Your task to perform on an android device: delete browsing data in the chrome app Image 0: 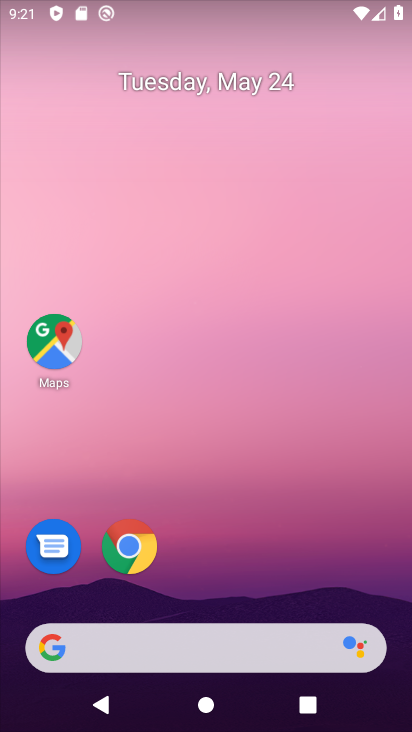
Step 0: click (128, 546)
Your task to perform on an android device: delete browsing data in the chrome app Image 1: 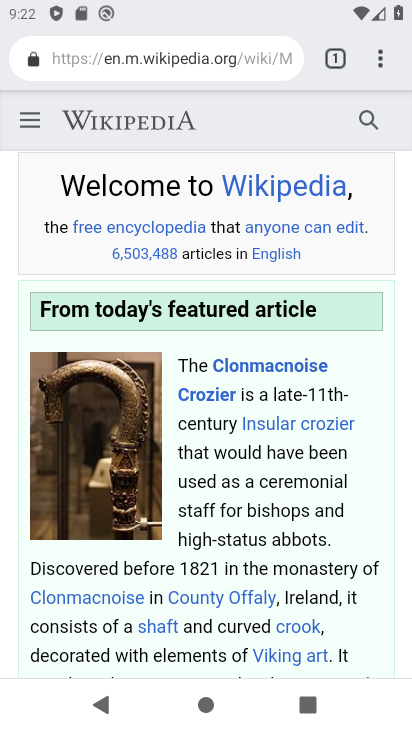
Step 1: click (384, 60)
Your task to perform on an android device: delete browsing data in the chrome app Image 2: 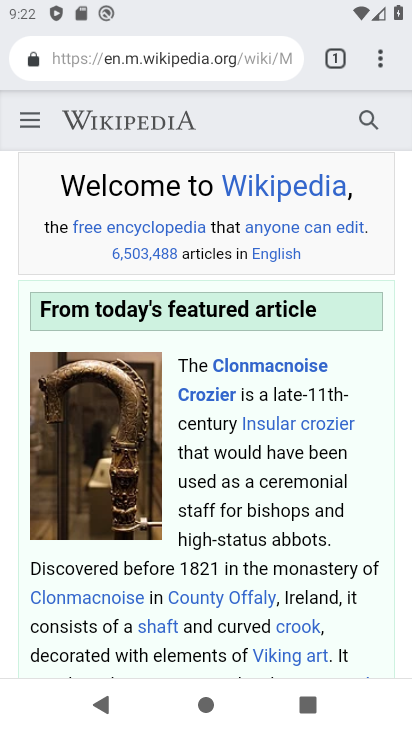
Step 2: click (376, 60)
Your task to perform on an android device: delete browsing data in the chrome app Image 3: 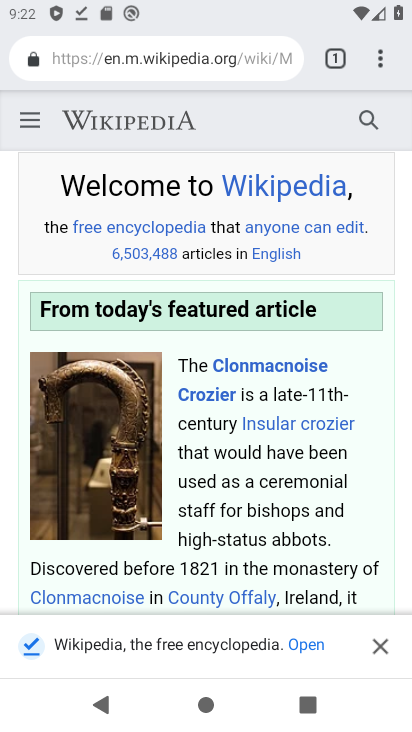
Step 3: click (378, 61)
Your task to perform on an android device: delete browsing data in the chrome app Image 4: 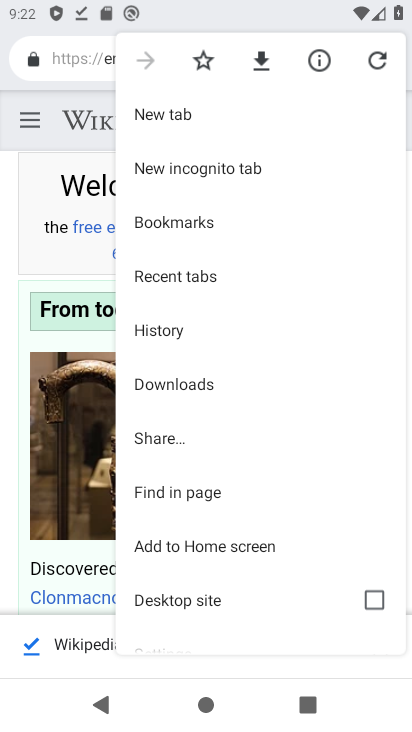
Step 4: drag from (258, 566) to (267, 292)
Your task to perform on an android device: delete browsing data in the chrome app Image 5: 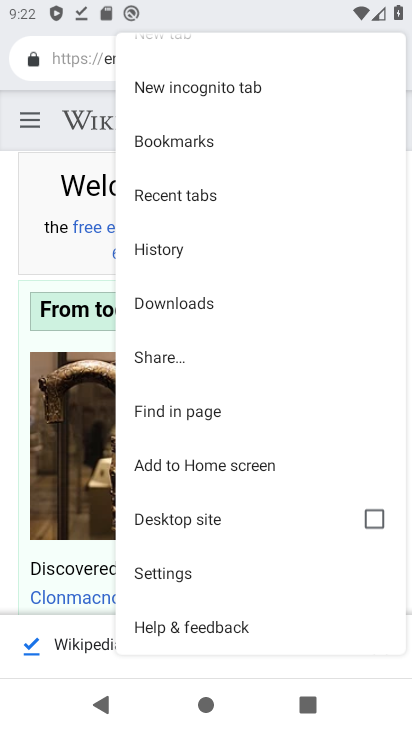
Step 5: drag from (267, 292) to (277, 598)
Your task to perform on an android device: delete browsing data in the chrome app Image 6: 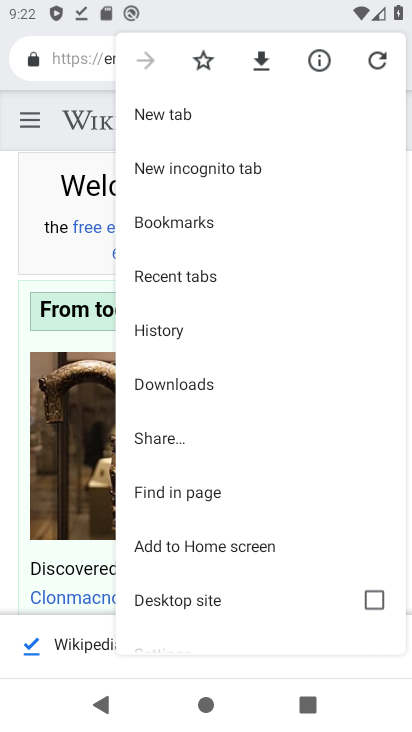
Step 6: click (166, 333)
Your task to perform on an android device: delete browsing data in the chrome app Image 7: 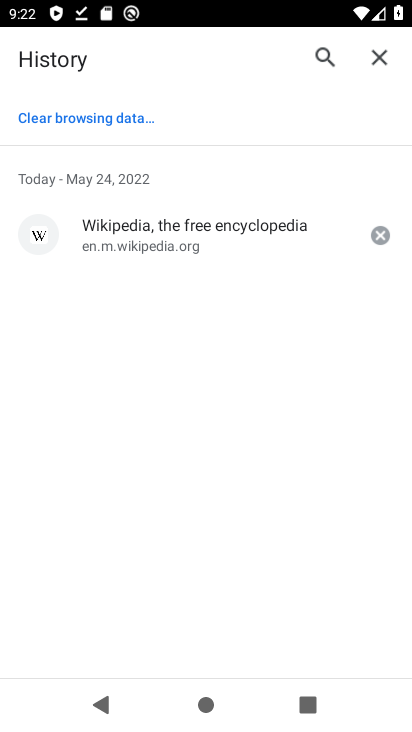
Step 7: click (95, 114)
Your task to perform on an android device: delete browsing data in the chrome app Image 8: 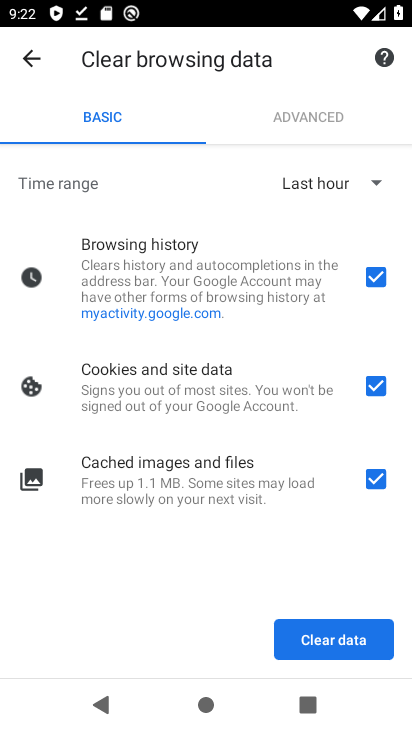
Step 8: click (329, 640)
Your task to perform on an android device: delete browsing data in the chrome app Image 9: 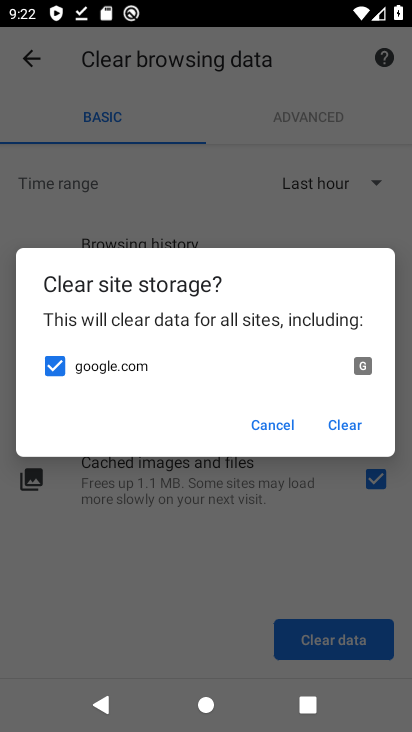
Step 9: click (344, 427)
Your task to perform on an android device: delete browsing data in the chrome app Image 10: 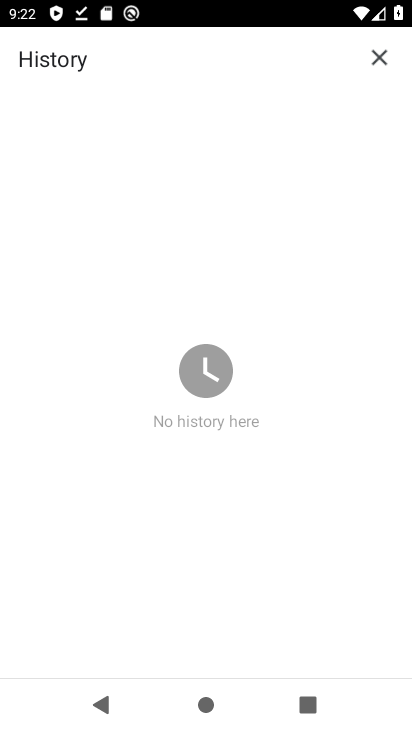
Step 10: task complete